Your task to perform on an android device: change the clock display to show seconds Image 0: 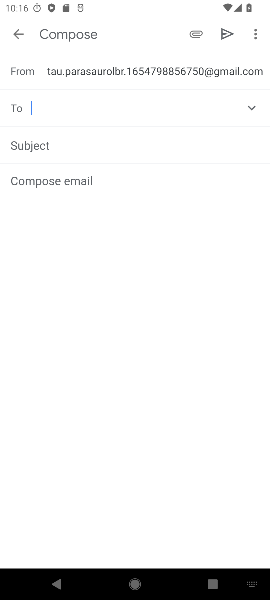
Step 0: press home button
Your task to perform on an android device: change the clock display to show seconds Image 1: 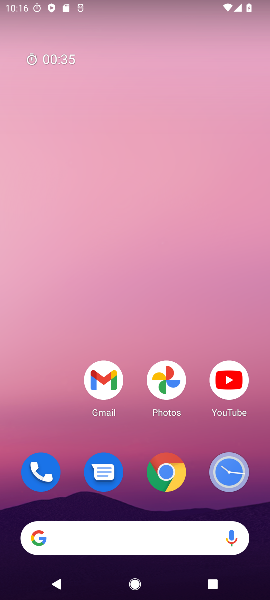
Step 1: click (243, 486)
Your task to perform on an android device: change the clock display to show seconds Image 2: 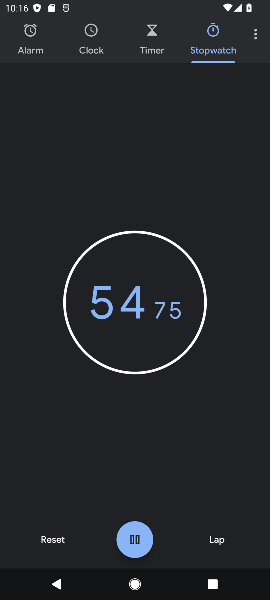
Step 2: click (262, 40)
Your task to perform on an android device: change the clock display to show seconds Image 3: 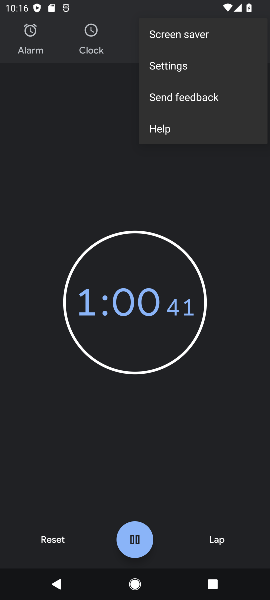
Step 3: click (200, 73)
Your task to perform on an android device: change the clock display to show seconds Image 4: 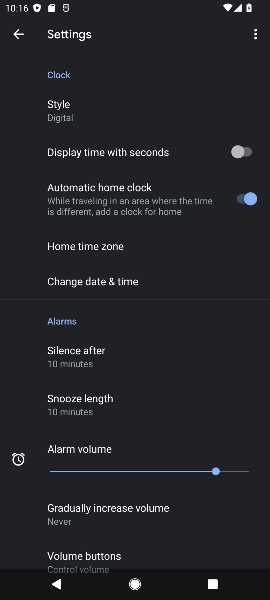
Step 4: click (230, 153)
Your task to perform on an android device: change the clock display to show seconds Image 5: 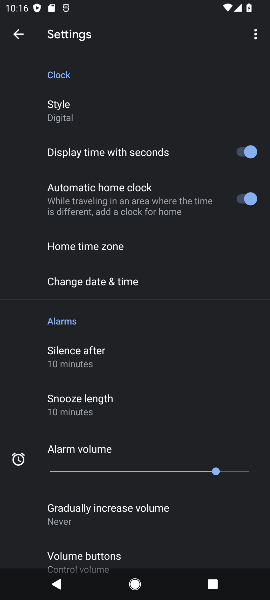
Step 5: task complete